Your task to perform on an android device: toggle translation in the chrome app Image 0: 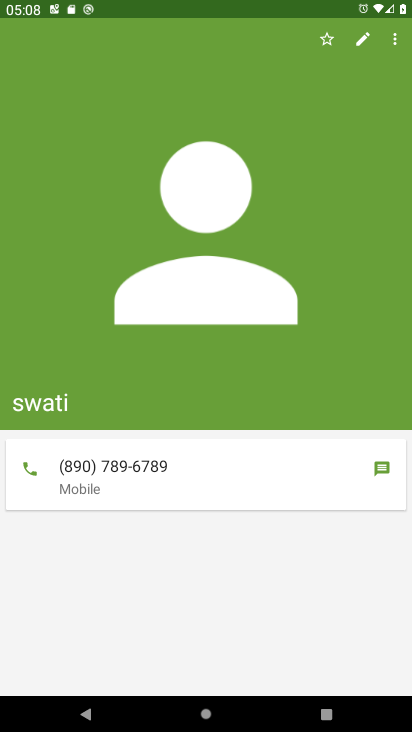
Step 0: press home button
Your task to perform on an android device: toggle translation in the chrome app Image 1: 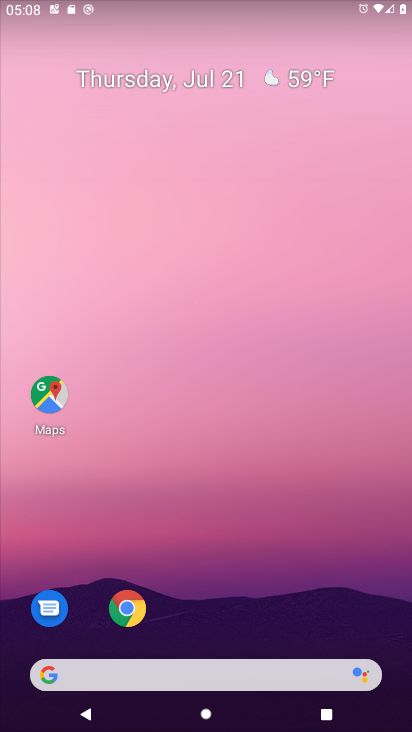
Step 1: drag from (257, 680) to (226, 7)
Your task to perform on an android device: toggle translation in the chrome app Image 2: 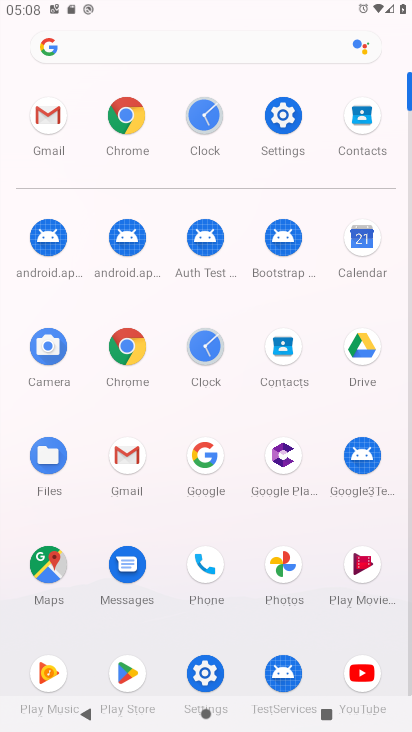
Step 2: click (120, 353)
Your task to perform on an android device: toggle translation in the chrome app Image 3: 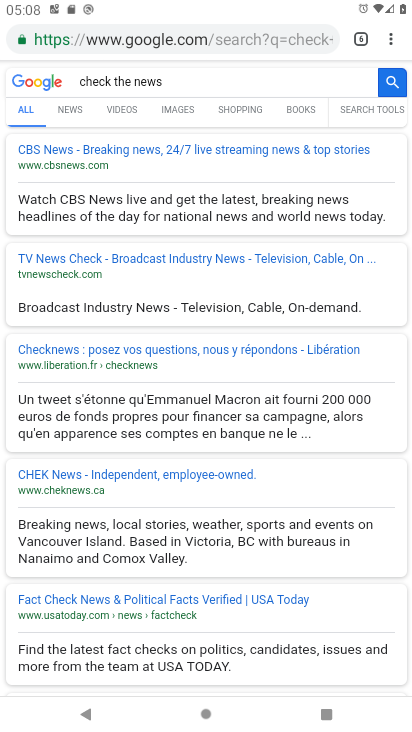
Step 3: drag from (395, 32) to (285, 435)
Your task to perform on an android device: toggle translation in the chrome app Image 4: 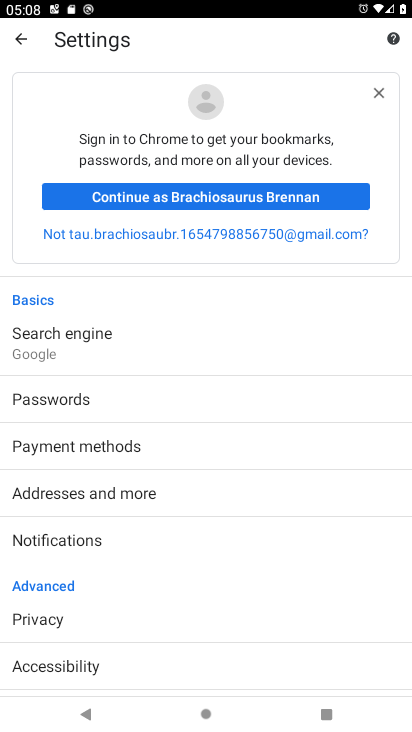
Step 4: drag from (203, 504) to (216, 293)
Your task to perform on an android device: toggle translation in the chrome app Image 5: 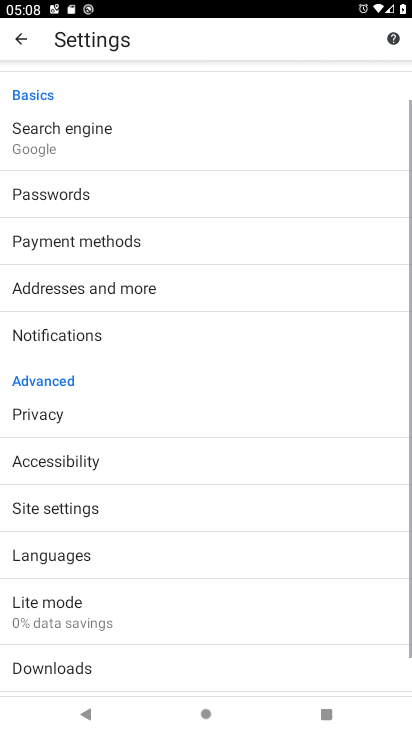
Step 5: drag from (150, 612) to (174, 366)
Your task to perform on an android device: toggle translation in the chrome app Image 6: 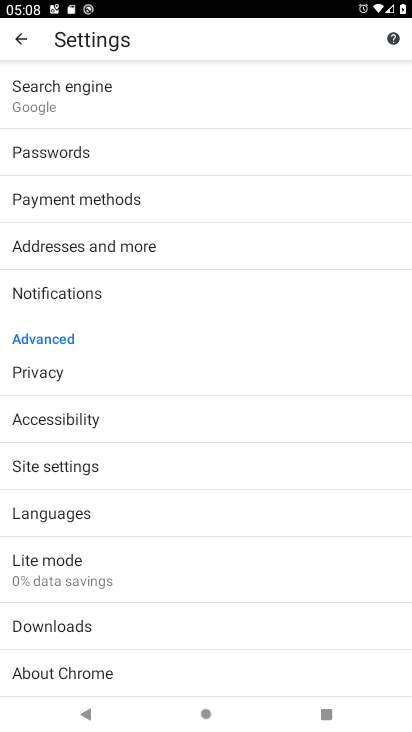
Step 6: click (88, 512)
Your task to perform on an android device: toggle translation in the chrome app Image 7: 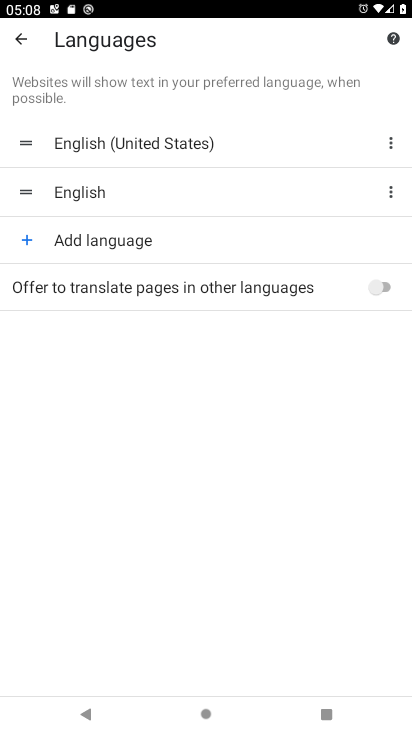
Step 7: click (385, 287)
Your task to perform on an android device: toggle translation in the chrome app Image 8: 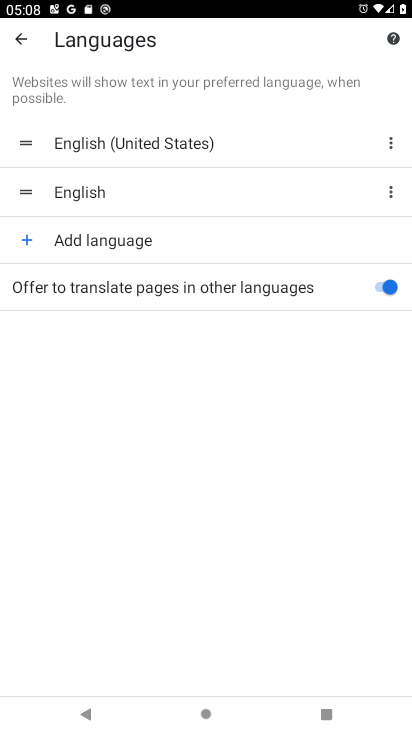
Step 8: task complete